Your task to perform on an android device: Set the phone to "Do not disturb". Image 0: 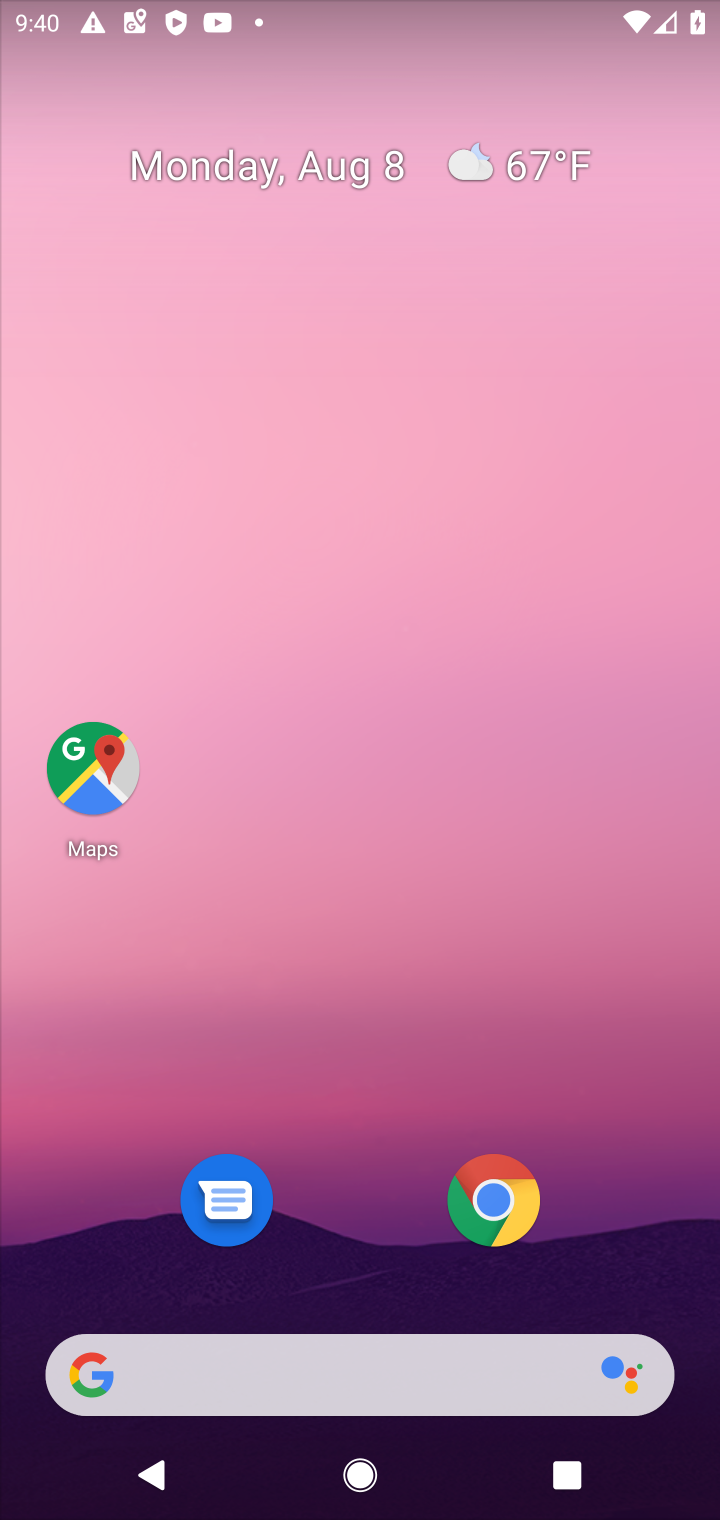
Step 0: press home button
Your task to perform on an android device: Set the phone to "Do not disturb". Image 1: 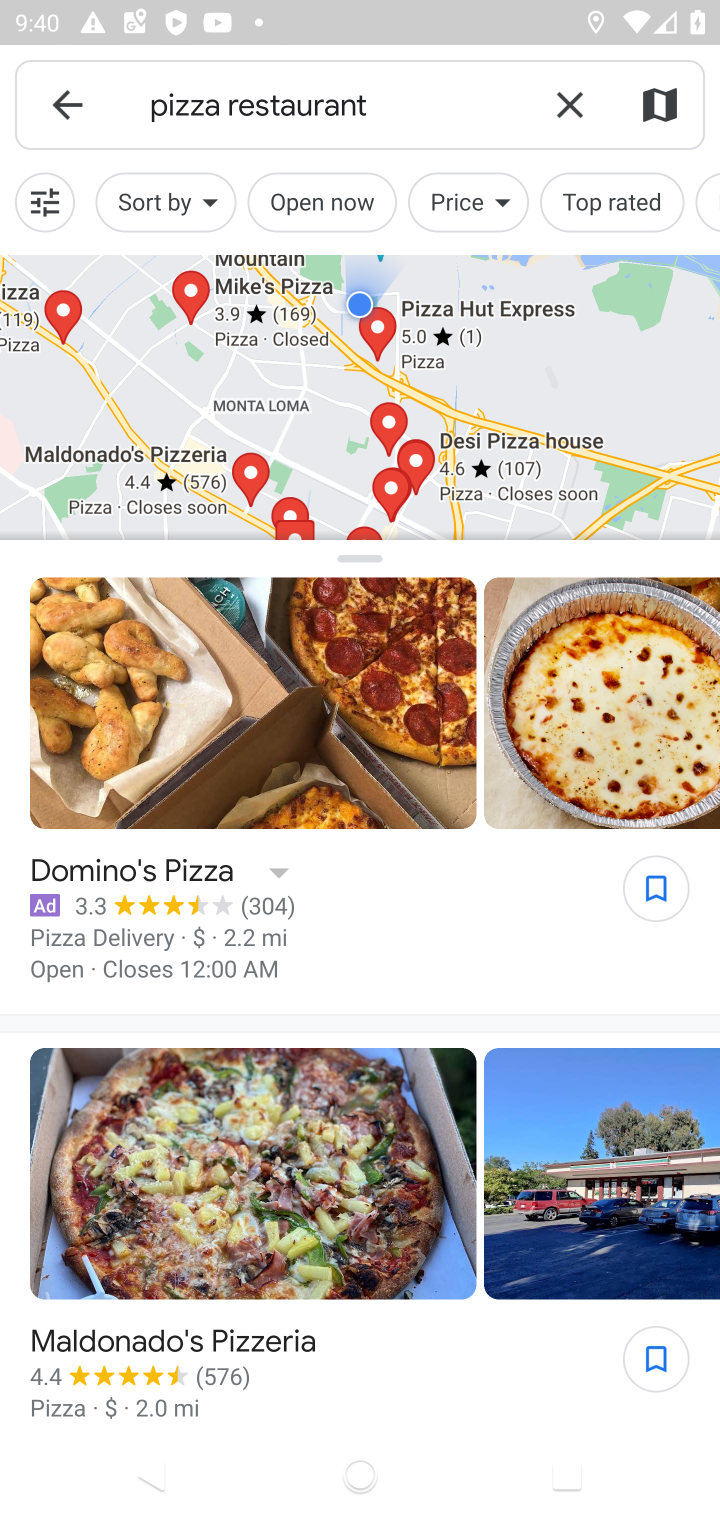
Step 1: press home button
Your task to perform on an android device: Set the phone to "Do not disturb". Image 2: 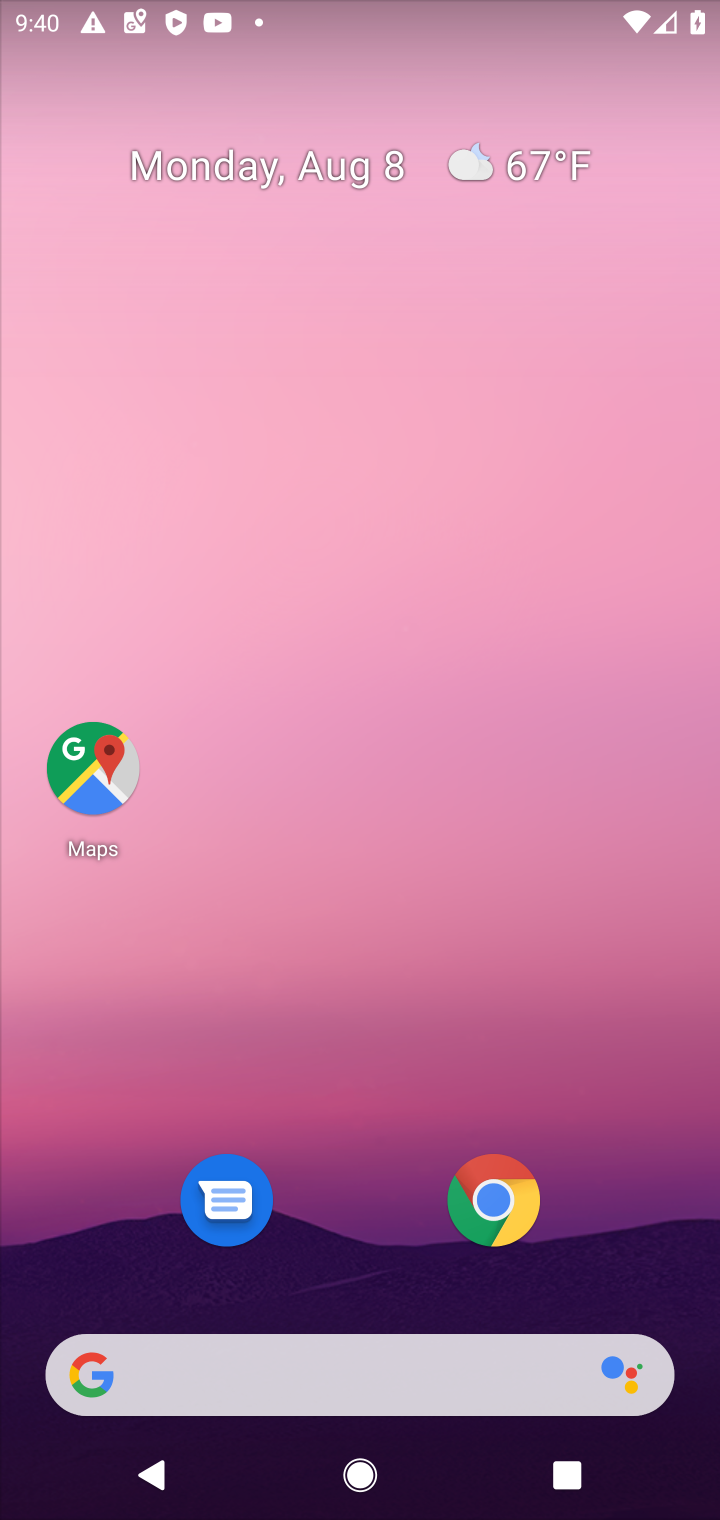
Step 2: press home button
Your task to perform on an android device: Set the phone to "Do not disturb". Image 3: 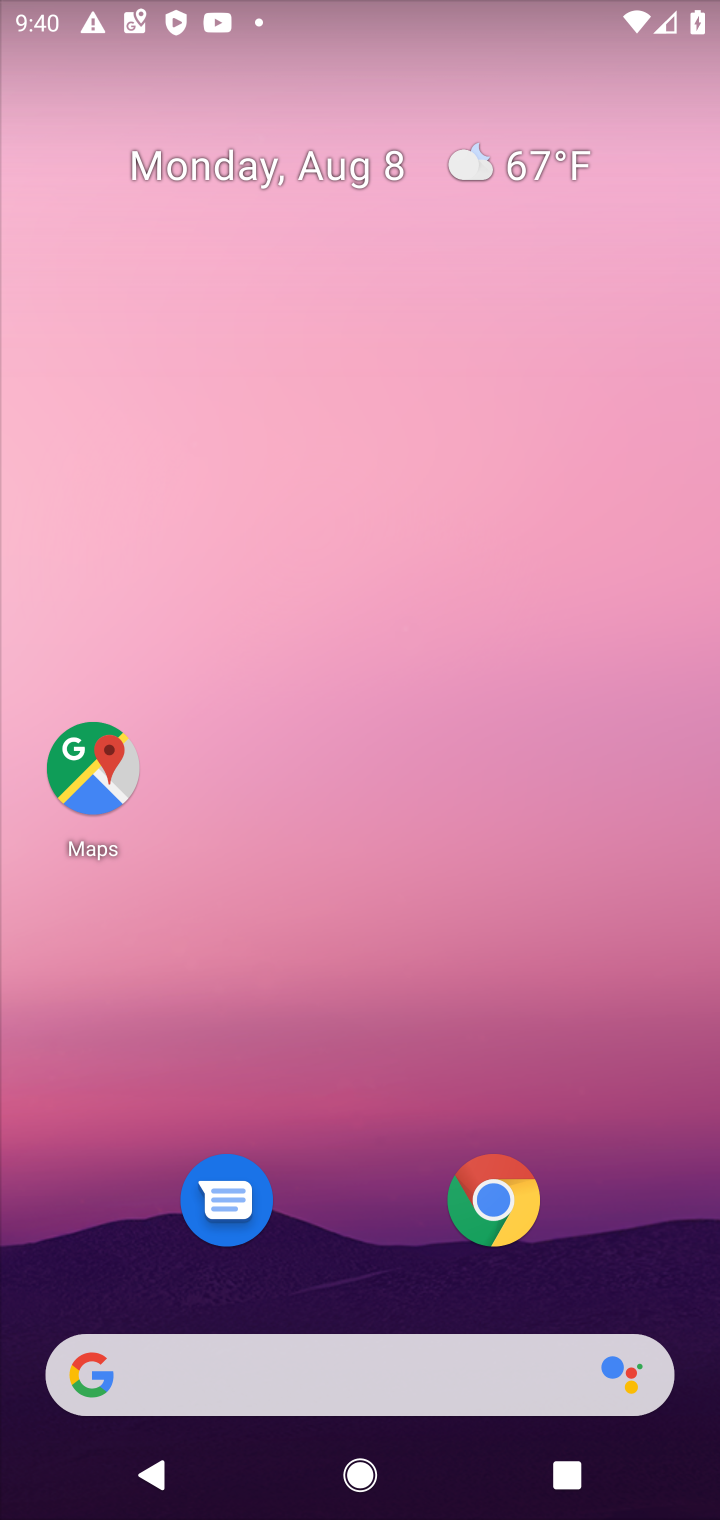
Step 3: drag from (286, 1378) to (519, 190)
Your task to perform on an android device: Set the phone to "Do not disturb". Image 4: 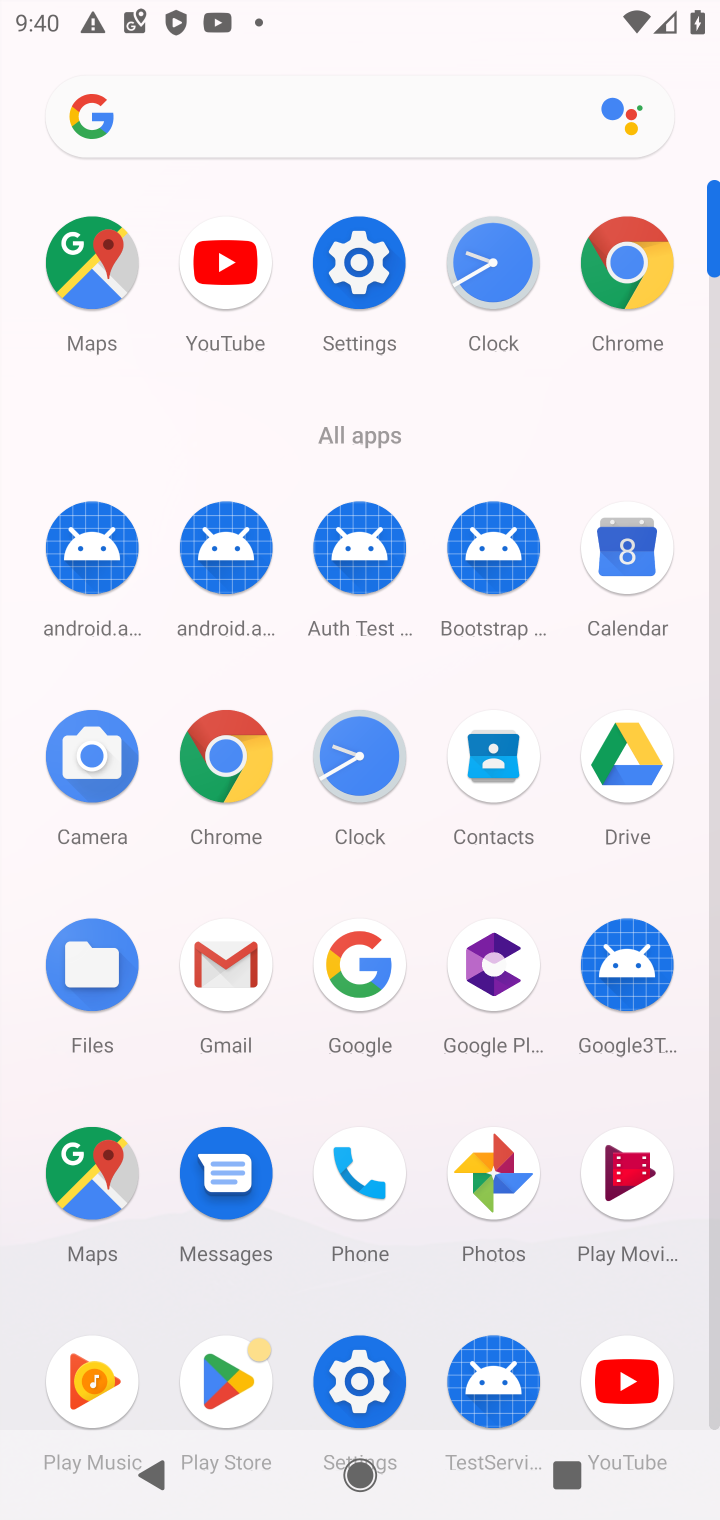
Step 4: drag from (361, 275) to (543, 875)
Your task to perform on an android device: Set the phone to "Do not disturb". Image 5: 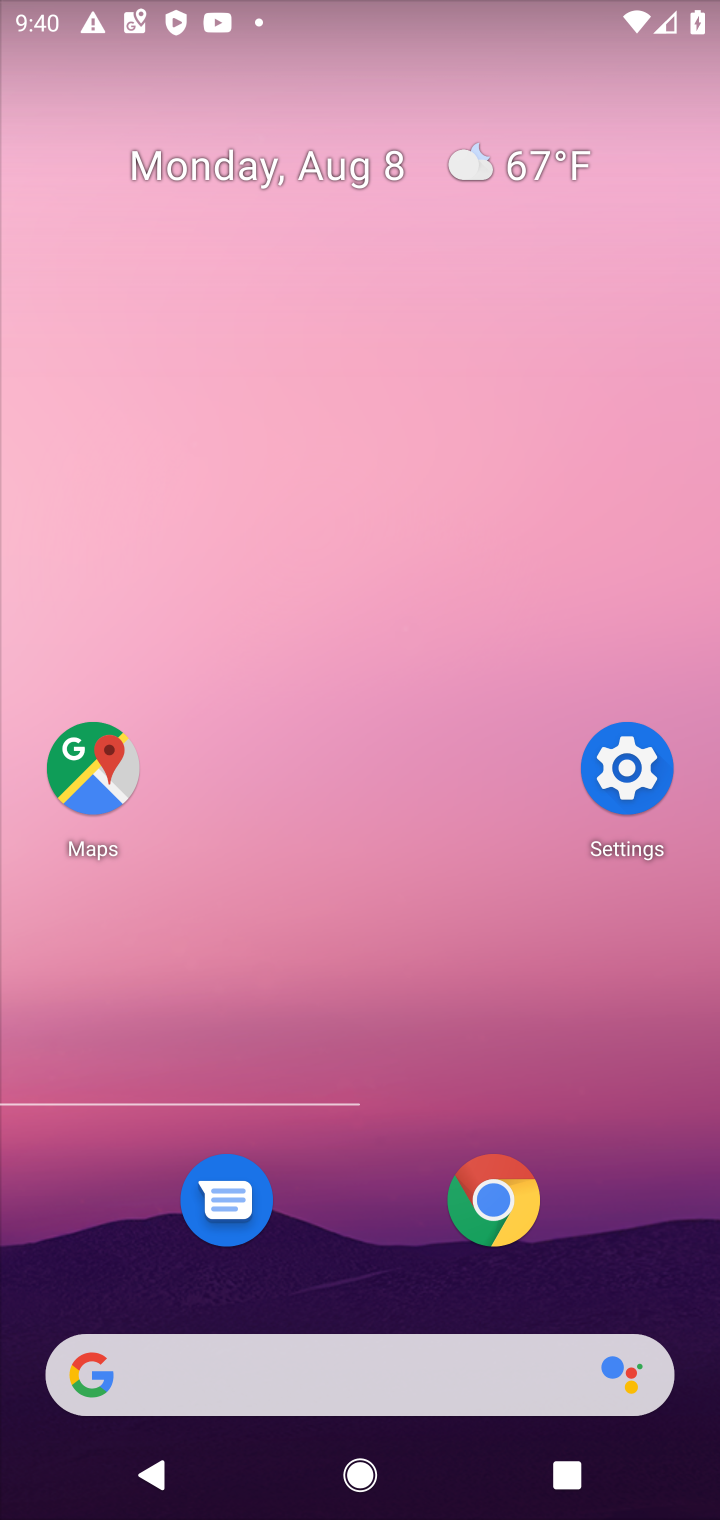
Step 5: click (625, 756)
Your task to perform on an android device: Set the phone to "Do not disturb". Image 6: 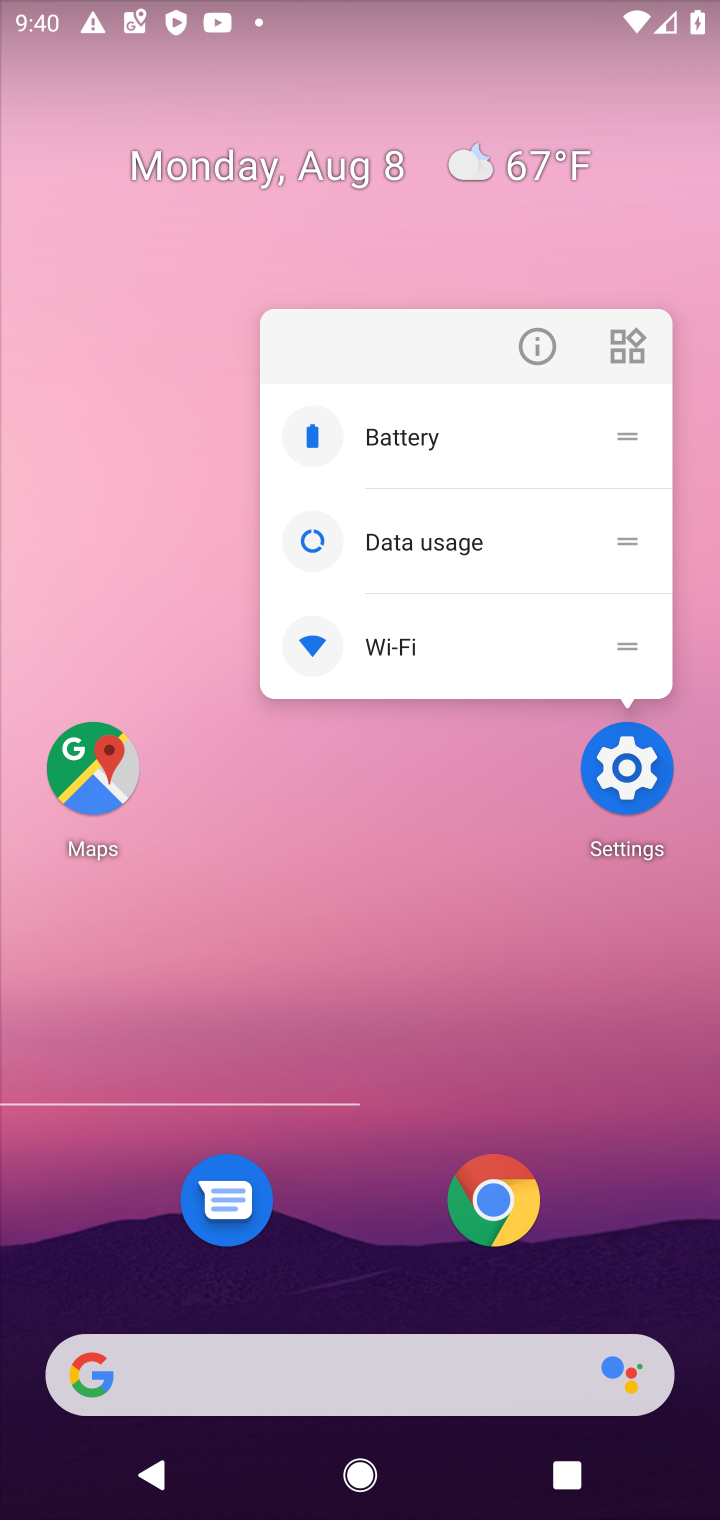
Step 6: click (625, 760)
Your task to perform on an android device: Set the phone to "Do not disturb". Image 7: 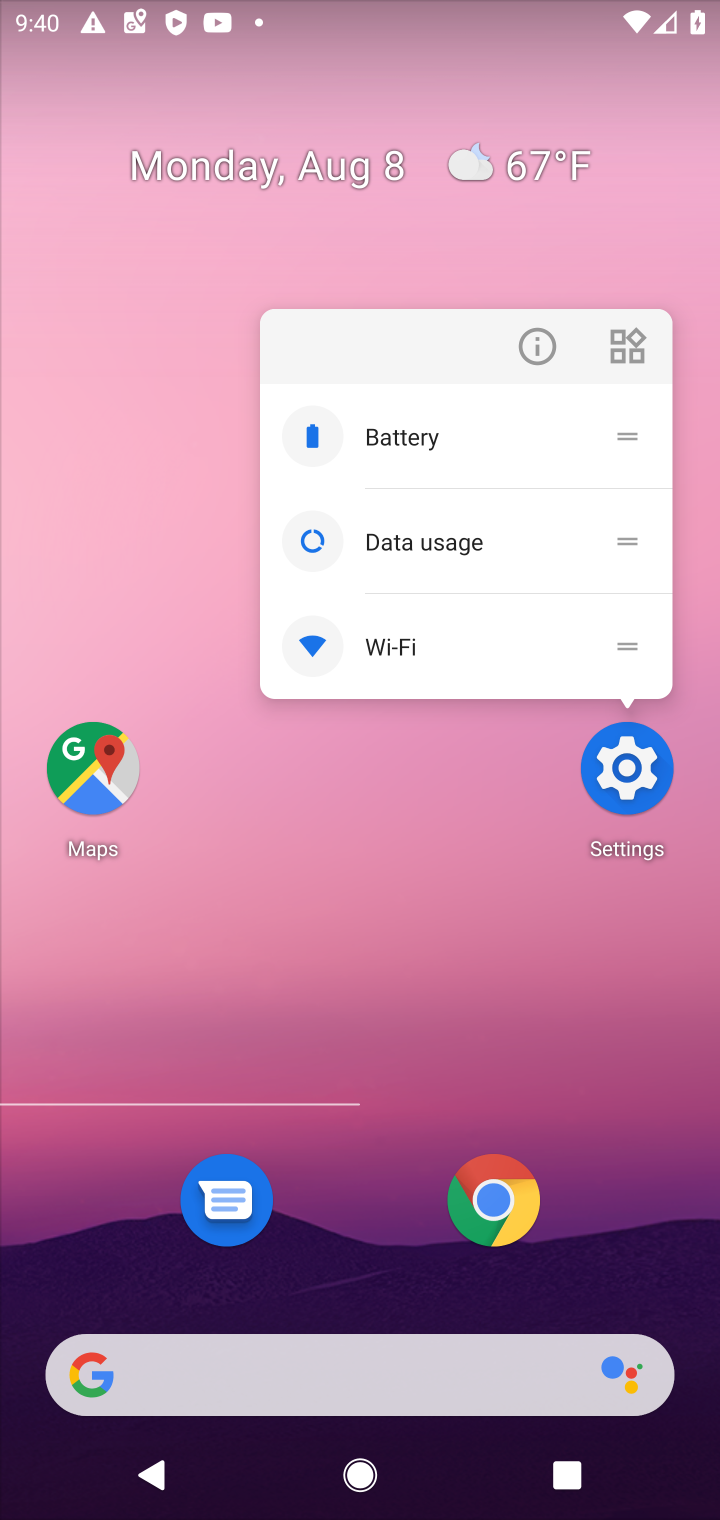
Step 7: click (625, 760)
Your task to perform on an android device: Set the phone to "Do not disturb". Image 8: 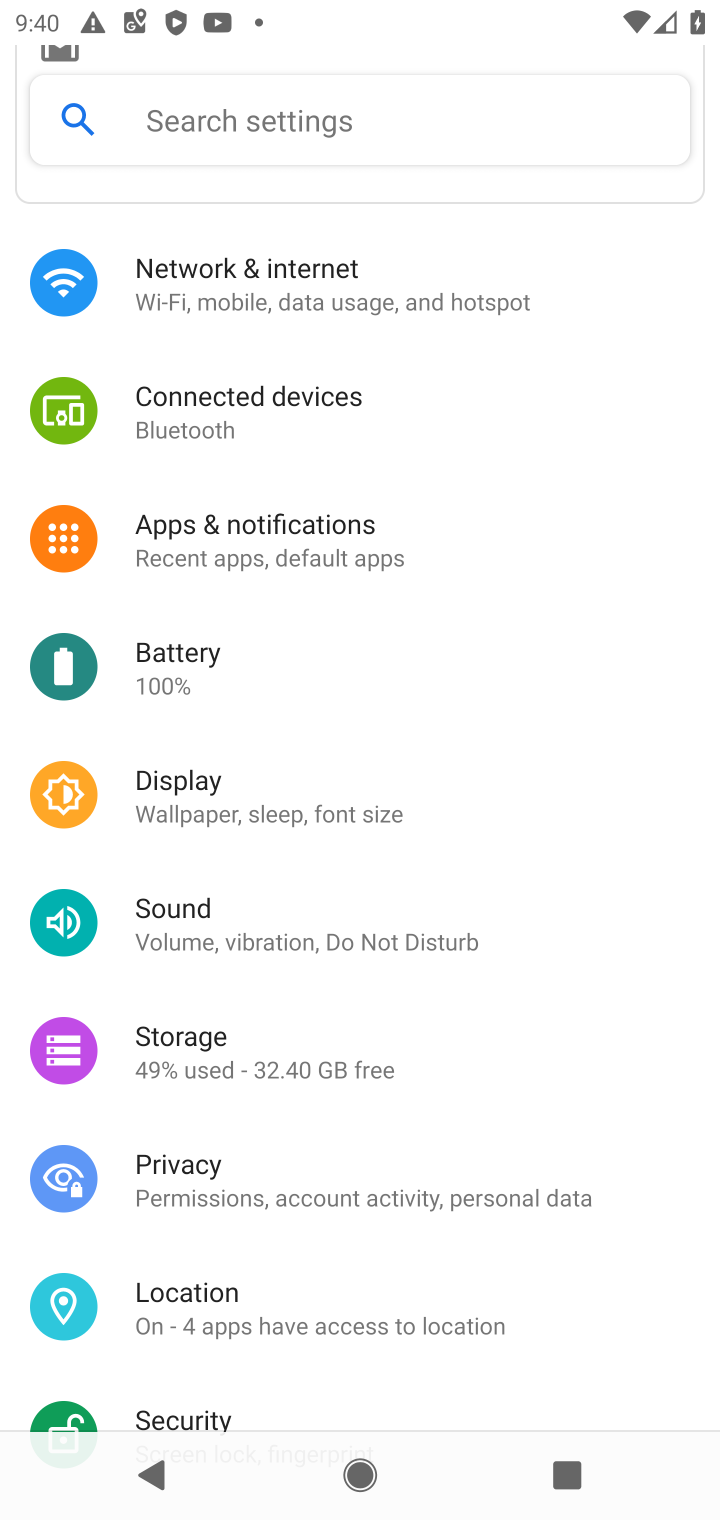
Step 8: click (208, 916)
Your task to perform on an android device: Set the phone to "Do not disturb". Image 9: 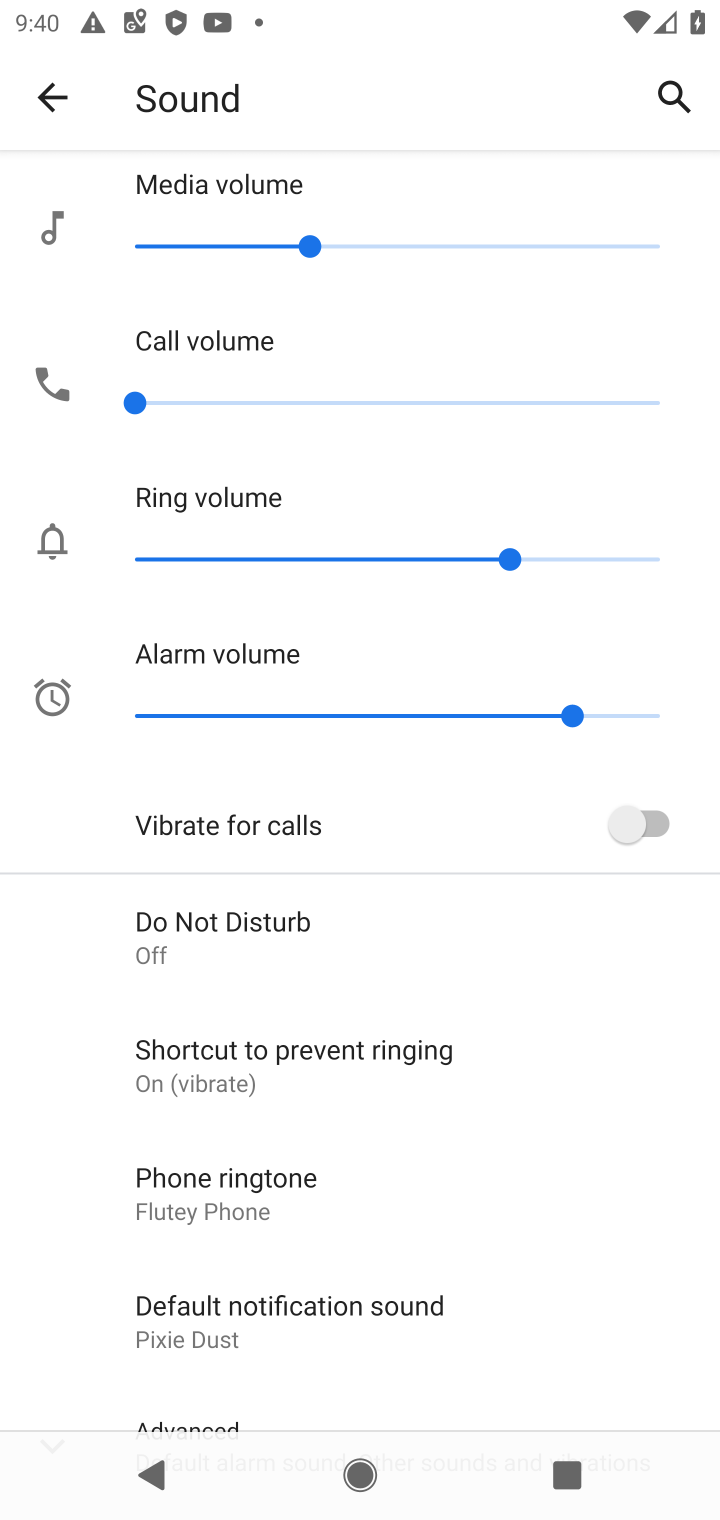
Step 9: click (213, 922)
Your task to perform on an android device: Set the phone to "Do not disturb". Image 10: 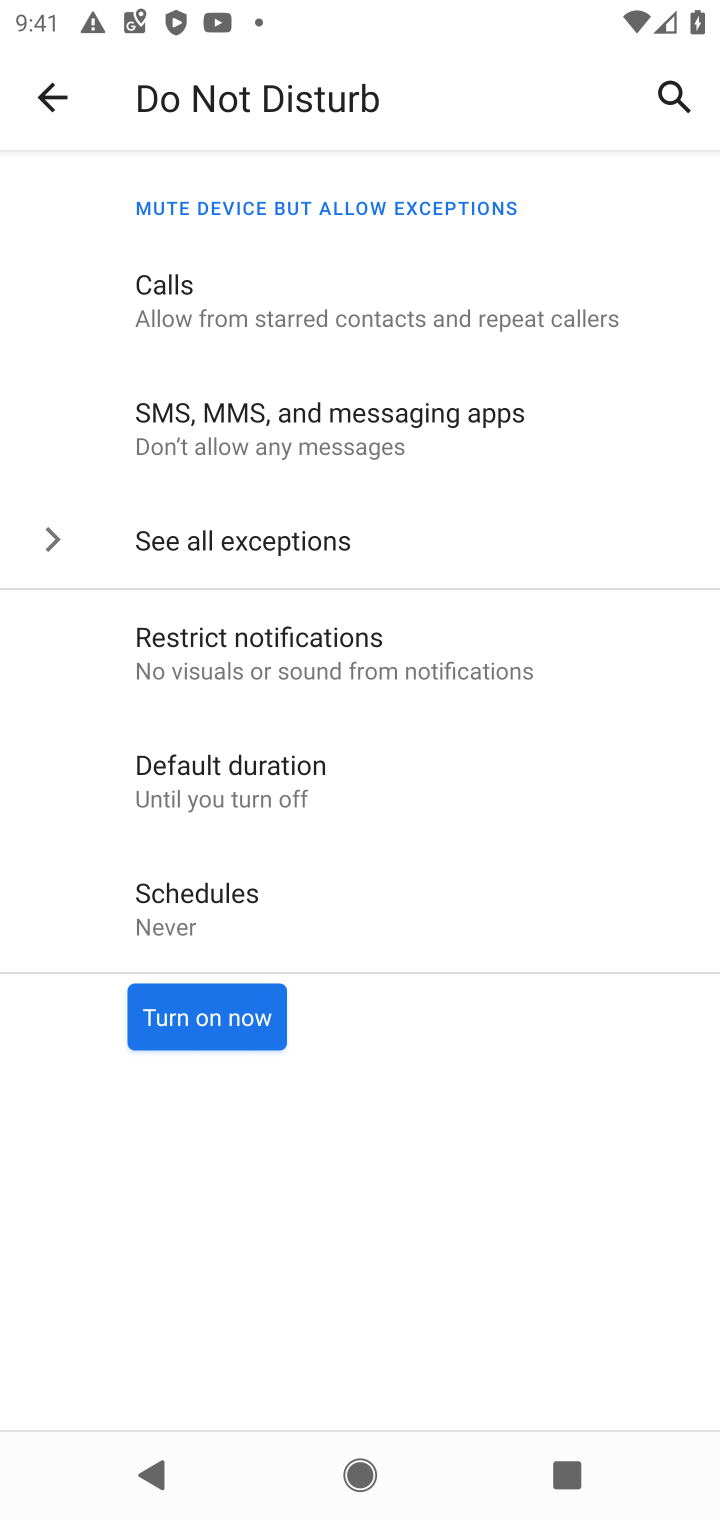
Step 10: click (200, 1025)
Your task to perform on an android device: Set the phone to "Do not disturb". Image 11: 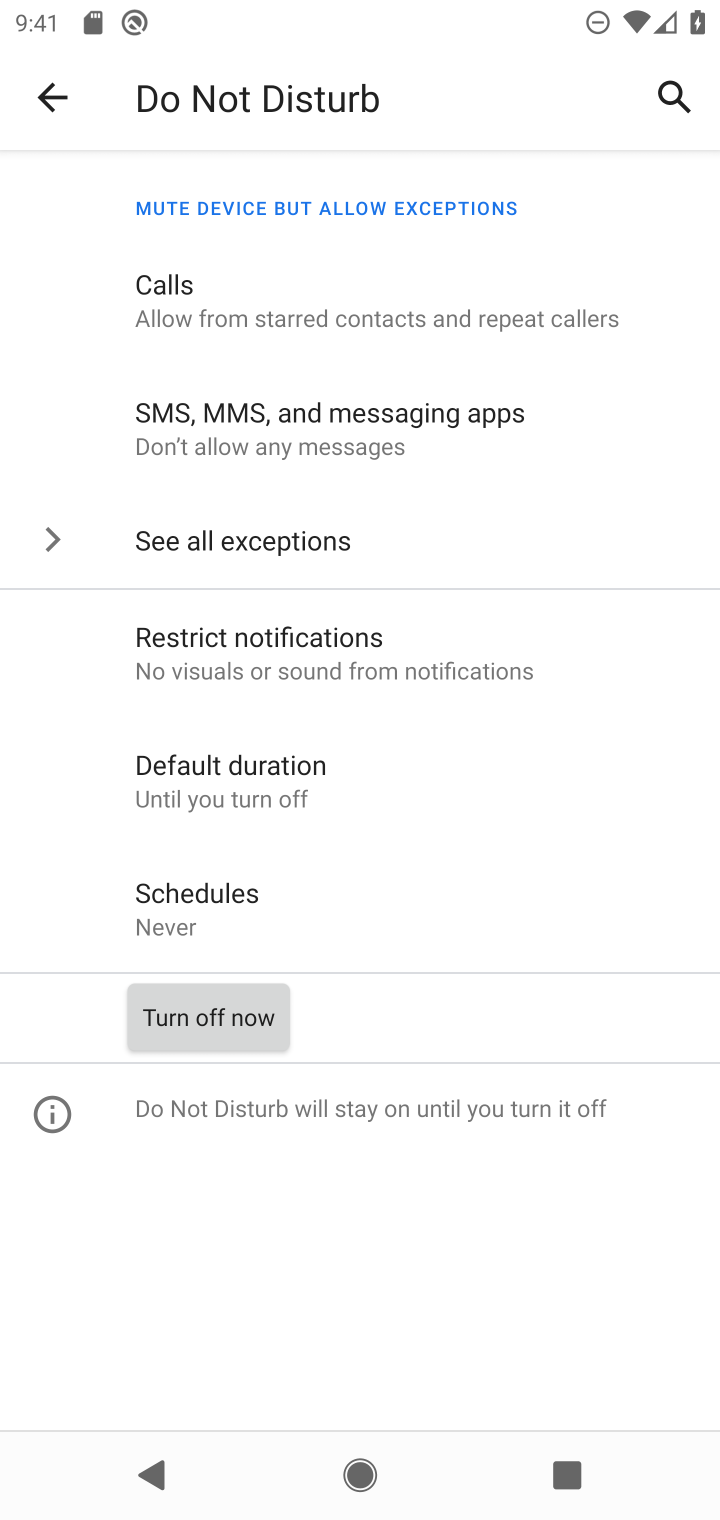
Step 11: task complete